Your task to perform on an android device: toggle wifi Image 0: 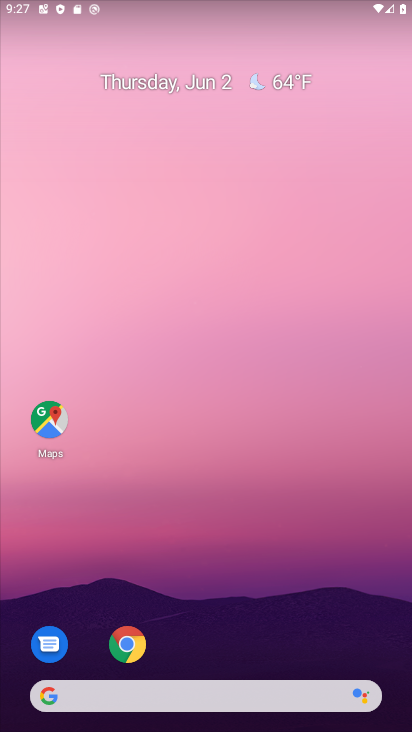
Step 0: press home button
Your task to perform on an android device: toggle wifi Image 1: 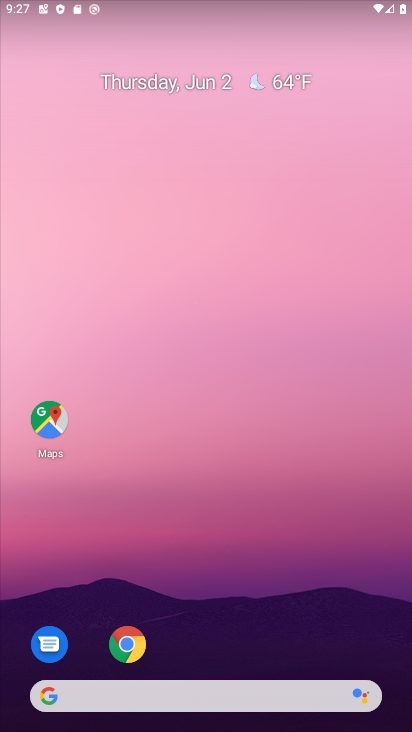
Step 1: drag from (287, 3) to (255, 731)
Your task to perform on an android device: toggle wifi Image 2: 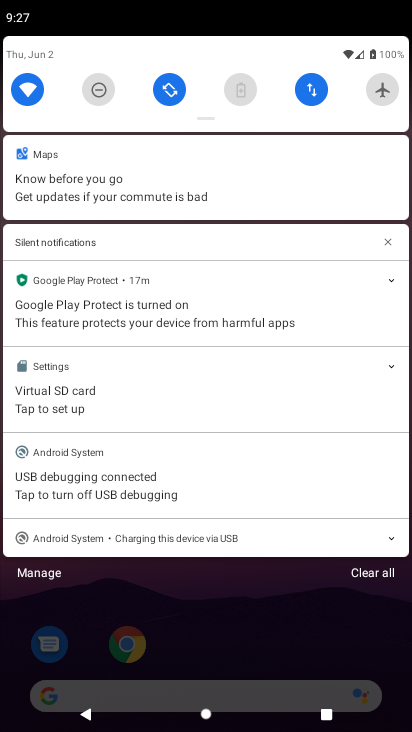
Step 2: click (29, 97)
Your task to perform on an android device: toggle wifi Image 3: 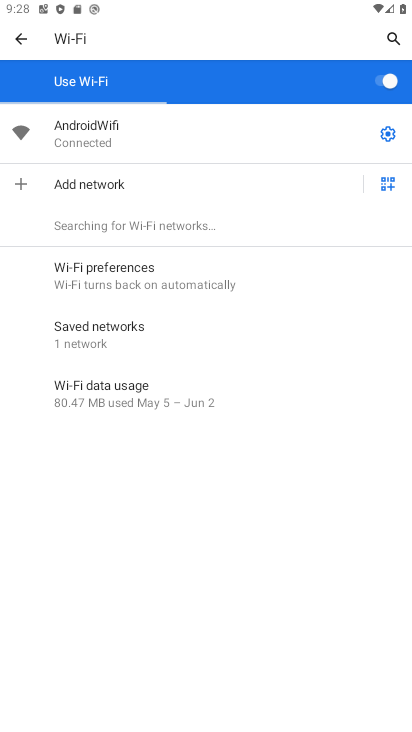
Step 3: click (329, 76)
Your task to perform on an android device: toggle wifi Image 4: 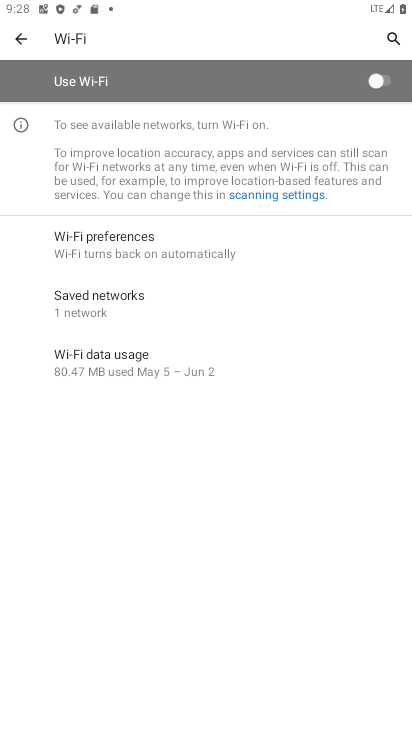
Step 4: task complete